Your task to perform on an android device: Open settings on Google Maps Image 0: 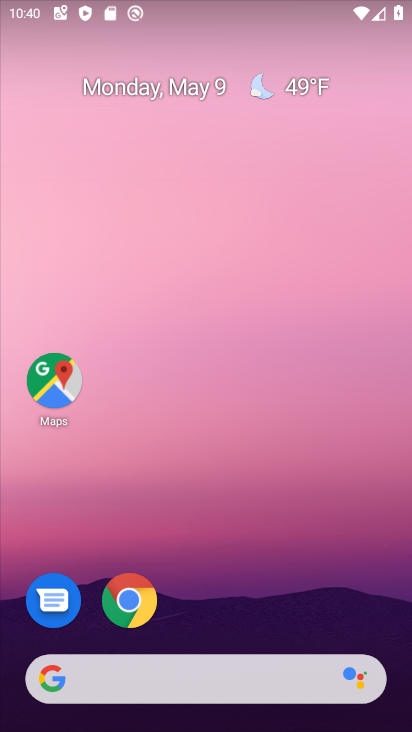
Step 0: drag from (302, 620) to (301, 252)
Your task to perform on an android device: Open settings on Google Maps Image 1: 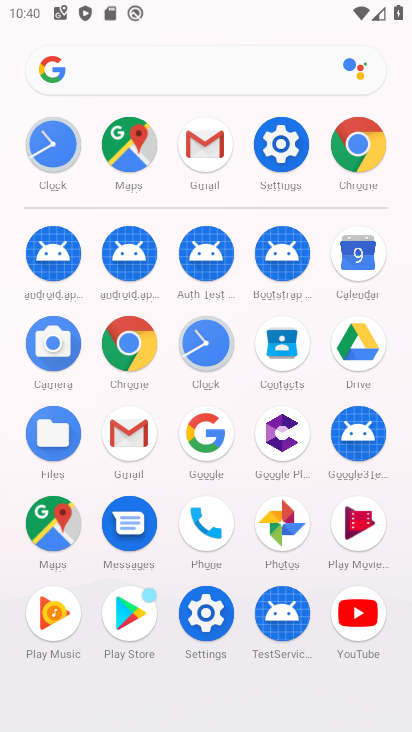
Step 1: click (150, 165)
Your task to perform on an android device: Open settings on Google Maps Image 2: 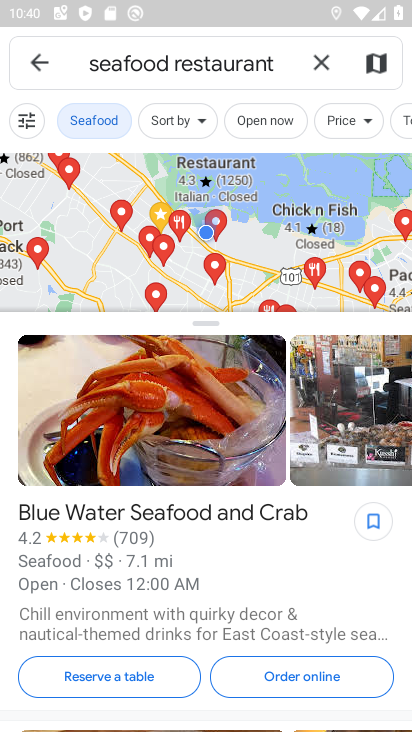
Step 2: click (48, 56)
Your task to perform on an android device: Open settings on Google Maps Image 3: 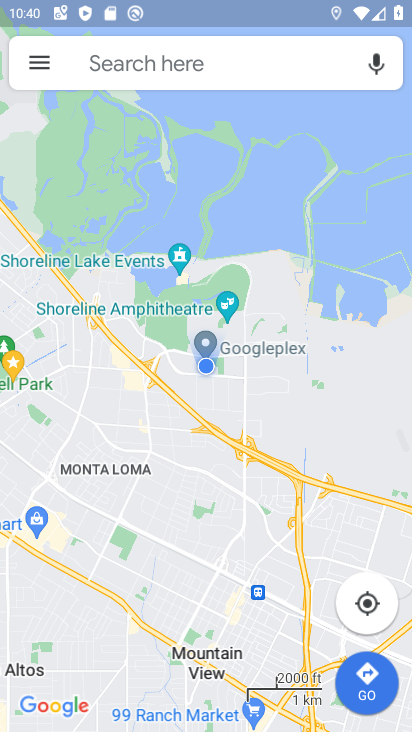
Step 3: click (46, 59)
Your task to perform on an android device: Open settings on Google Maps Image 4: 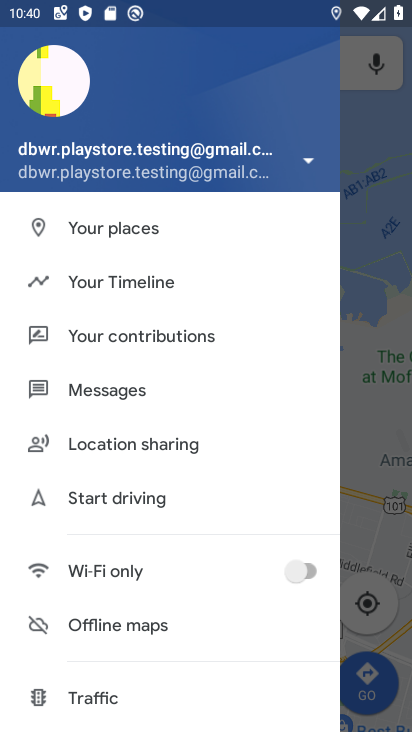
Step 4: click (166, 270)
Your task to perform on an android device: Open settings on Google Maps Image 5: 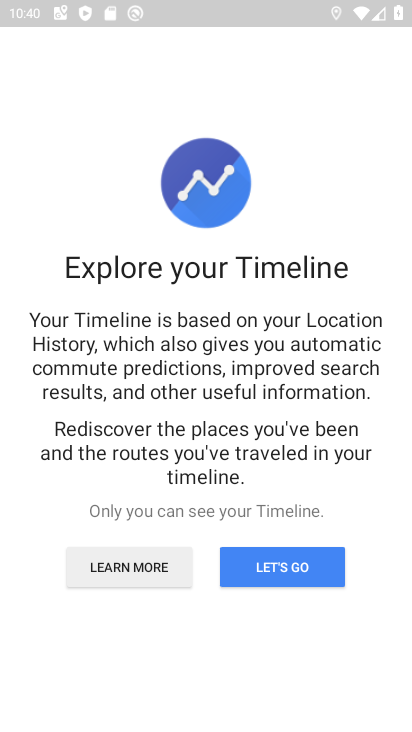
Step 5: click (325, 567)
Your task to perform on an android device: Open settings on Google Maps Image 6: 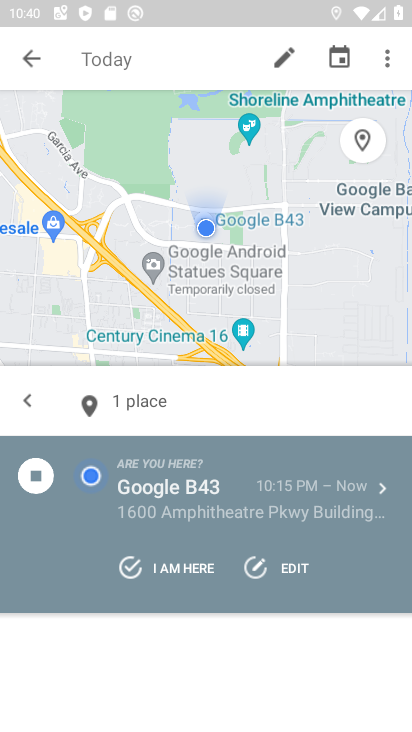
Step 6: click (386, 67)
Your task to perform on an android device: Open settings on Google Maps Image 7: 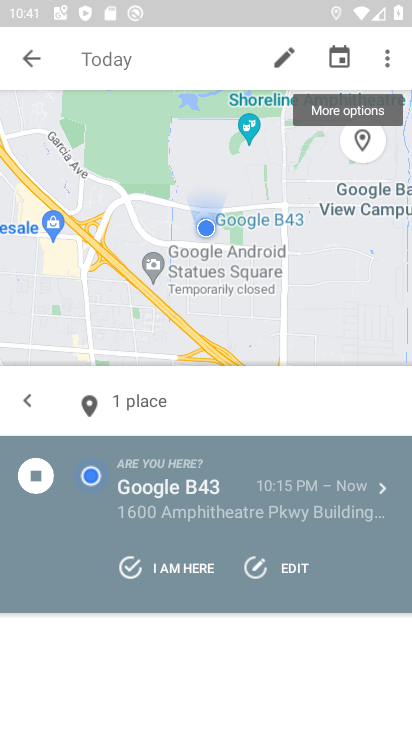
Step 7: click (380, 60)
Your task to perform on an android device: Open settings on Google Maps Image 8: 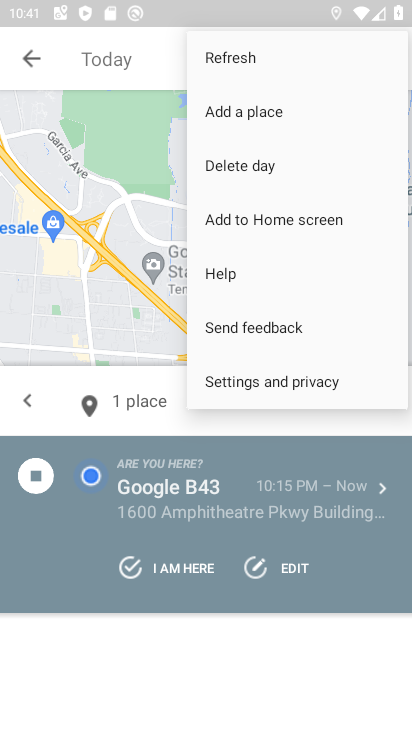
Step 8: click (338, 377)
Your task to perform on an android device: Open settings on Google Maps Image 9: 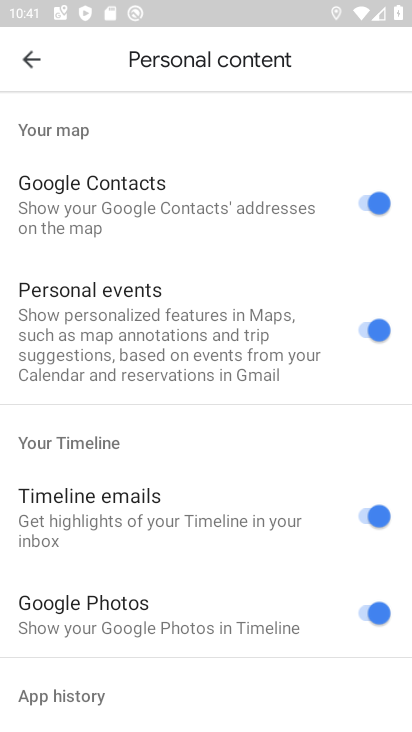
Step 9: task complete